Your task to perform on an android device: Open CNN.com Image 0: 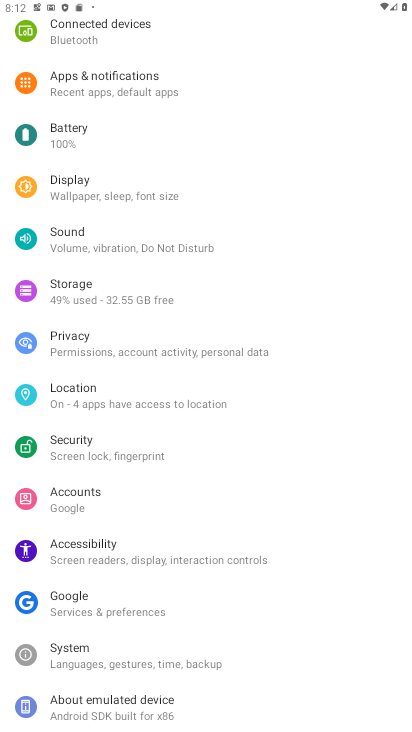
Step 0: press back button
Your task to perform on an android device: Open CNN.com Image 1: 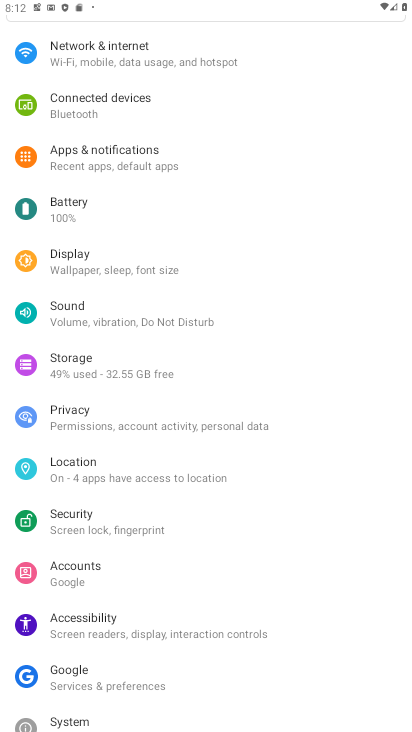
Step 1: press back button
Your task to perform on an android device: Open CNN.com Image 2: 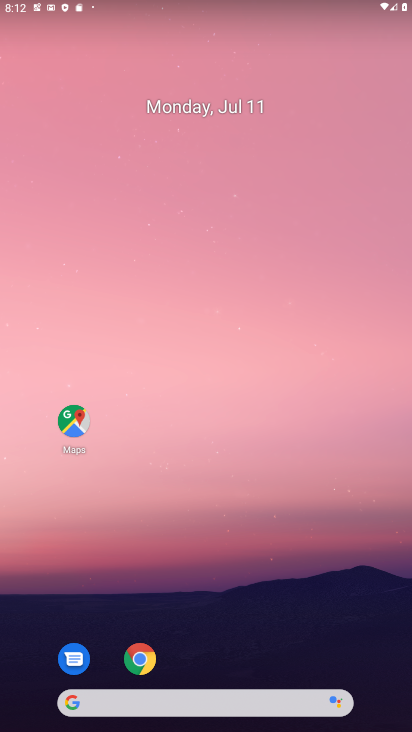
Step 2: drag from (245, 449) to (239, 295)
Your task to perform on an android device: Open CNN.com Image 3: 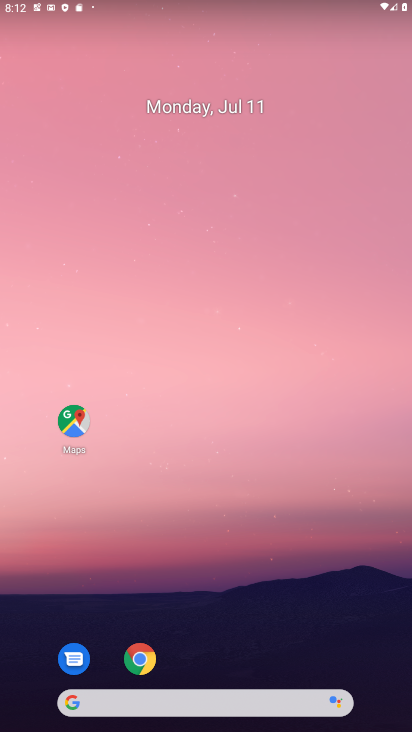
Step 3: drag from (226, 694) to (181, 76)
Your task to perform on an android device: Open CNN.com Image 4: 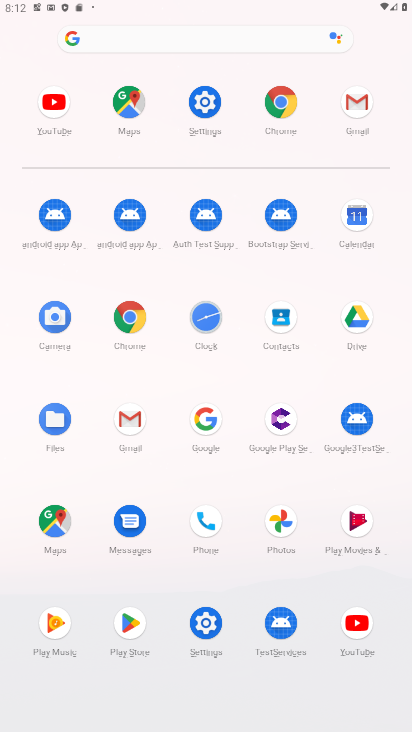
Step 4: click (276, 95)
Your task to perform on an android device: Open CNN.com Image 5: 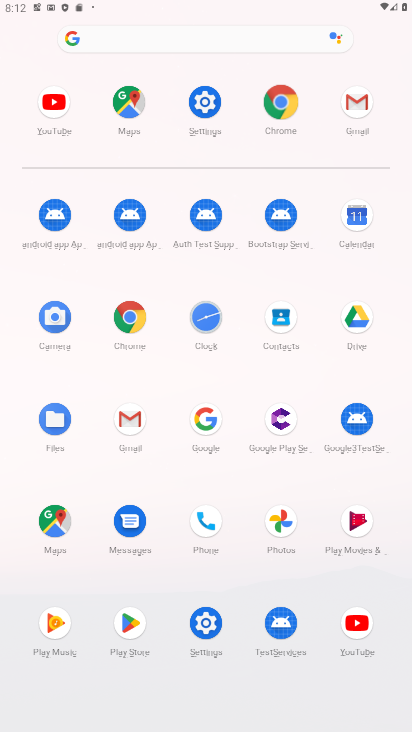
Step 5: click (281, 100)
Your task to perform on an android device: Open CNN.com Image 6: 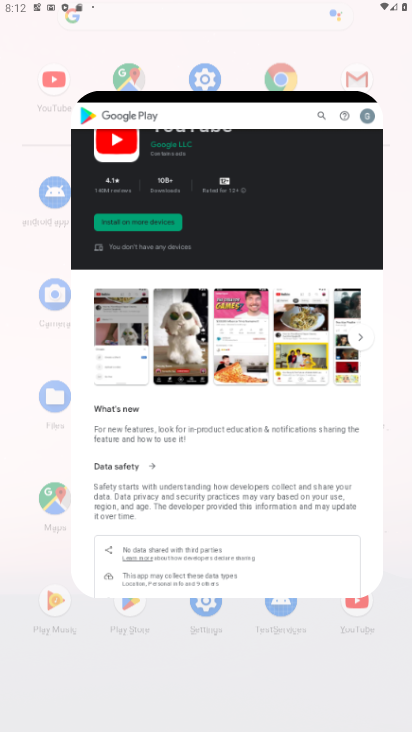
Step 6: click (283, 105)
Your task to perform on an android device: Open CNN.com Image 7: 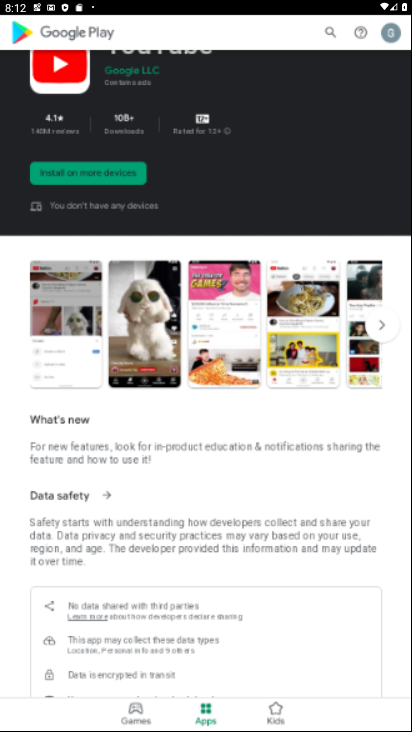
Step 7: click (283, 105)
Your task to perform on an android device: Open CNN.com Image 8: 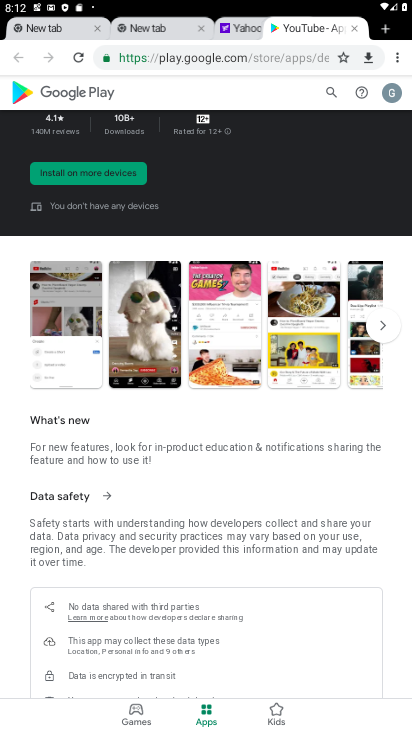
Step 8: click (354, 27)
Your task to perform on an android device: Open CNN.com Image 9: 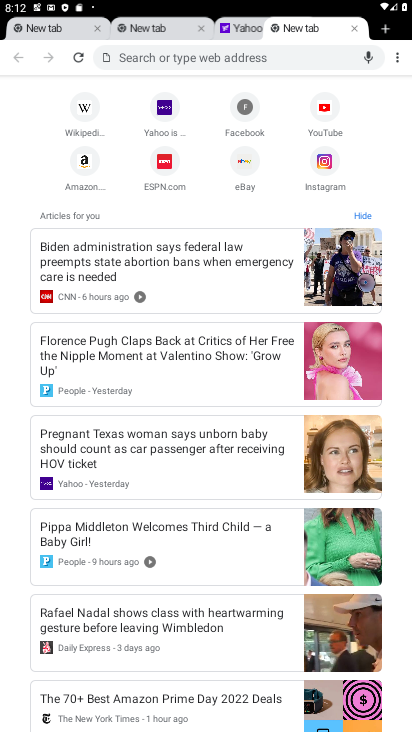
Step 9: type "cnn.com"
Your task to perform on an android device: Open CNN.com Image 10: 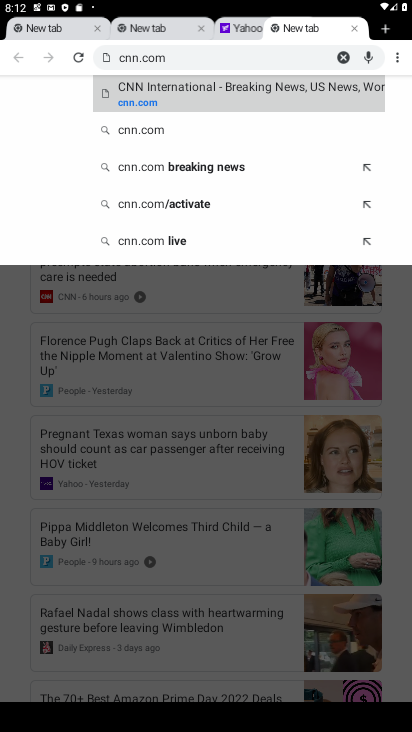
Step 10: click (334, 91)
Your task to perform on an android device: Open CNN.com Image 11: 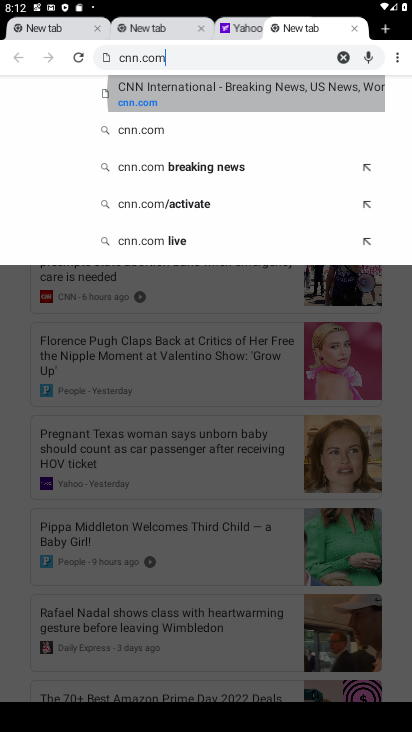
Step 11: click (334, 91)
Your task to perform on an android device: Open CNN.com Image 12: 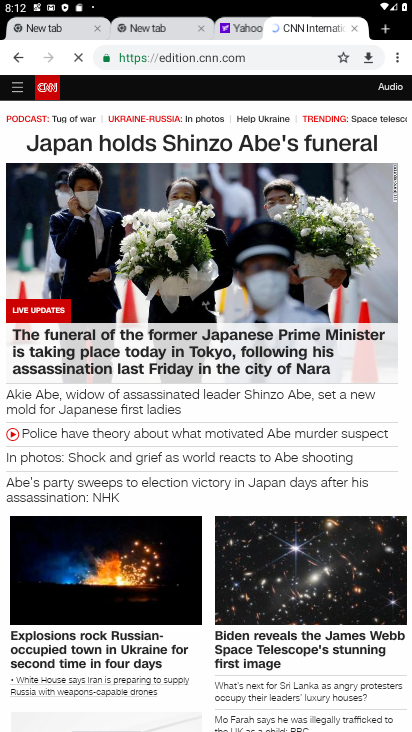
Step 12: task complete